Your task to perform on an android device: Open Chrome and go to settings Image 0: 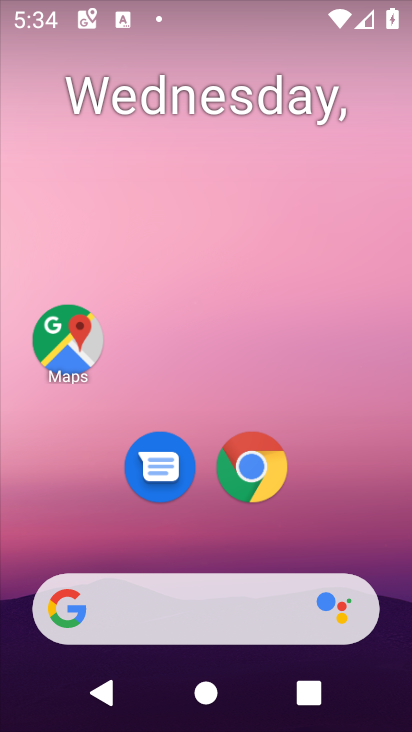
Step 0: click (247, 453)
Your task to perform on an android device: Open Chrome and go to settings Image 1: 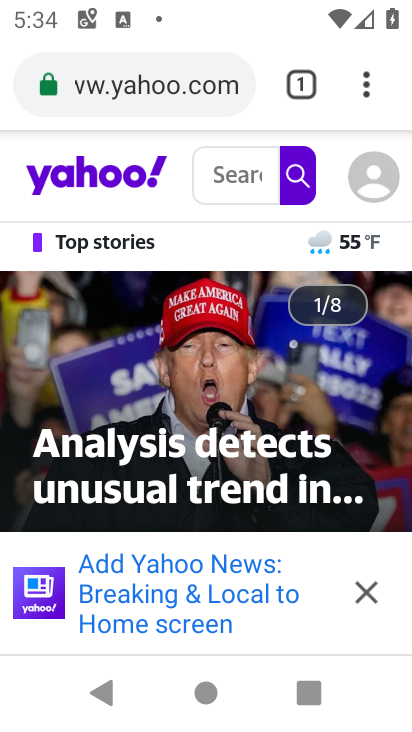
Step 1: click (366, 83)
Your task to perform on an android device: Open Chrome and go to settings Image 2: 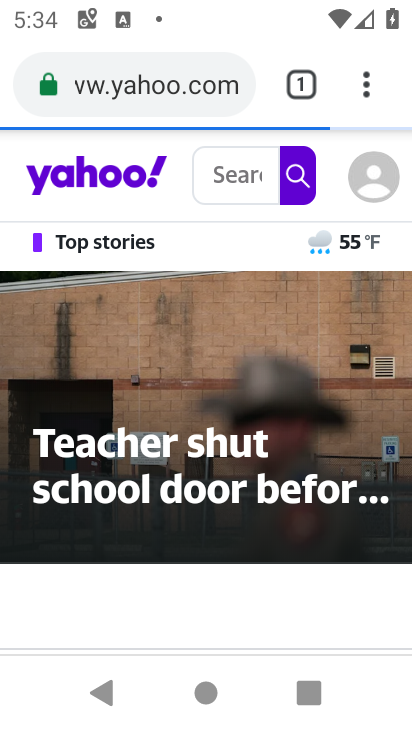
Step 2: click (364, 83)
Your task to perform on an android device: Open Chrome and go to settings Image 3: 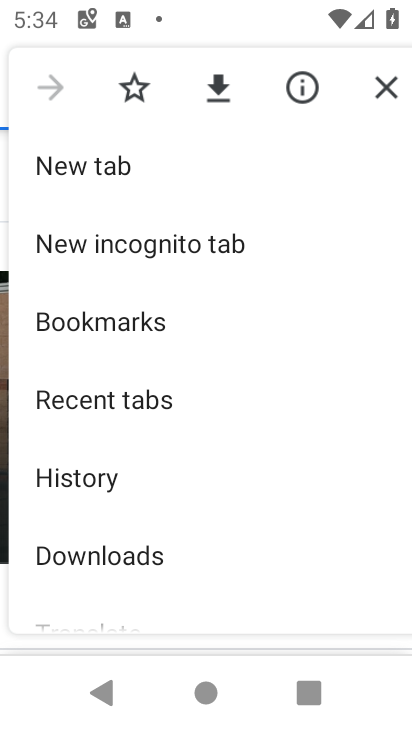
Step 3: drag from (267, 505) to (242, 75)
Your task to perform on an android device: Open Chrome and go to settings Image 4: 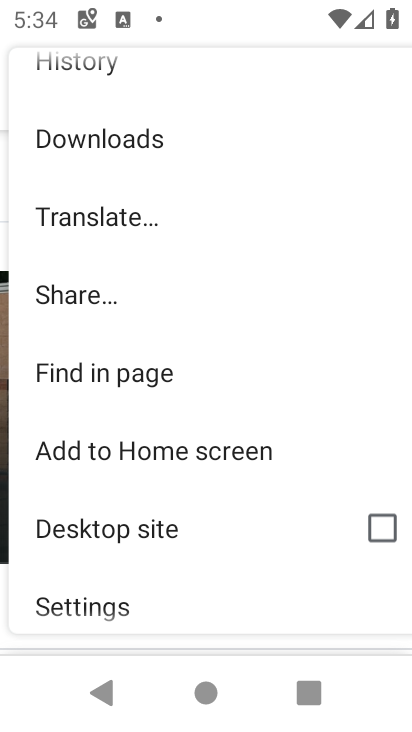
Step 4: click (191, 609)
Your task to perform on an android device: Open Chrome and go to settings Image 5: 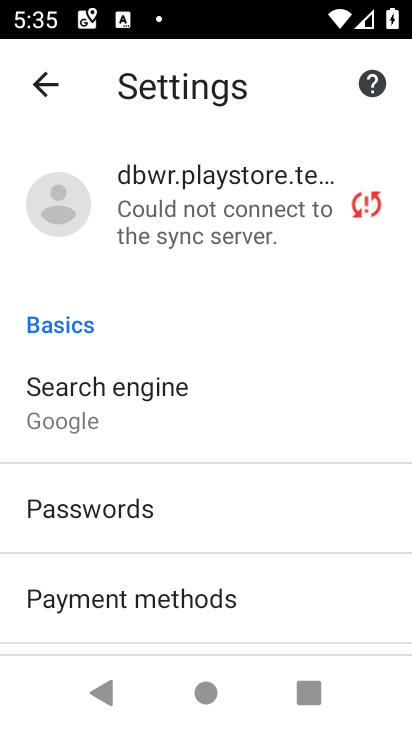
Step 5: task complete